Your task to perform on an android device: Open Chrome and go to settings Image 0: 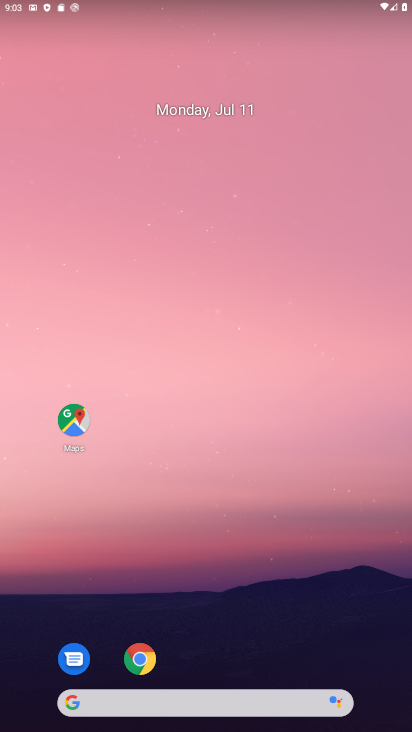
Step 0: click (136, 658)
Your task to perform on an android device: Open Chrome and go to settings Image 1: 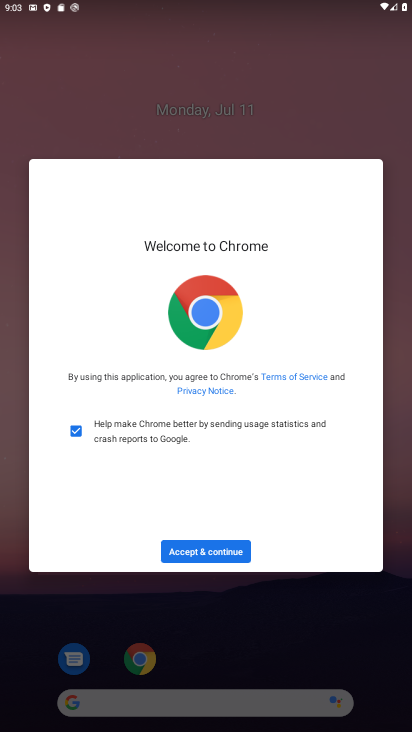
Step 1: click (199, 552)
Your task to perform on an android device: Open Chrome and go to settings Image 2: 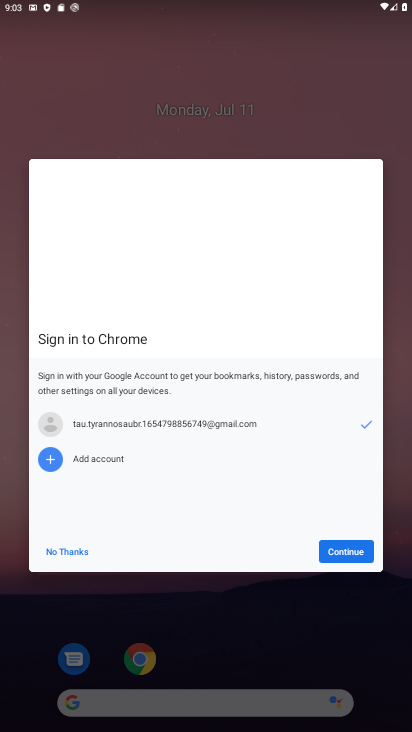
Step 2: click (344, 552)
Your task to perform on an android device: Open Chrome and go to settings Image 3: 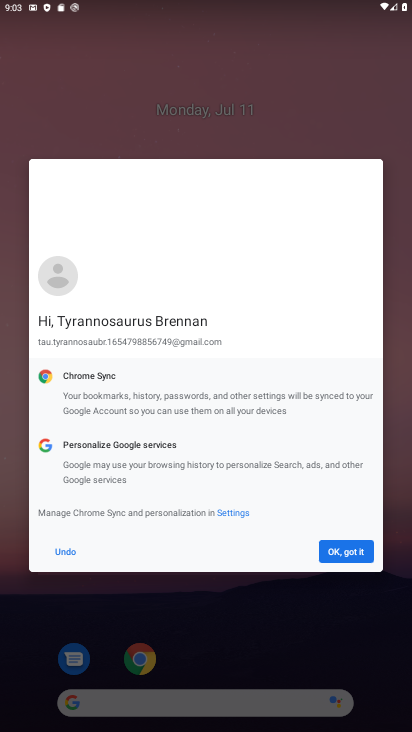
Step 3: click (337, 553)
Your task to perform on an android device: Open Chrome and go to settings Image 4: 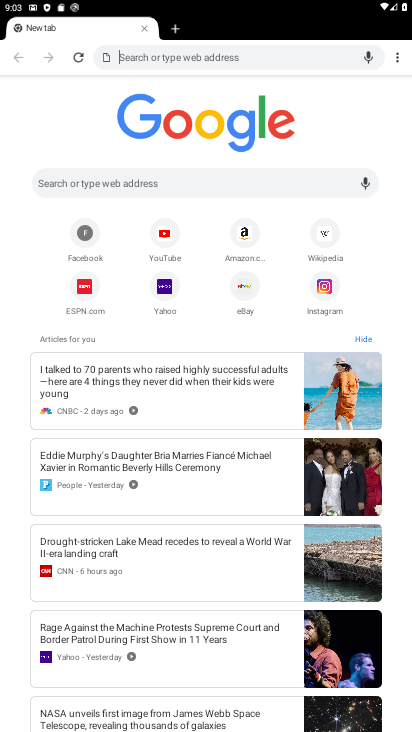
Step 4: click (395, 60)
Your task to perform on an android device: Open Chrome and go to settings Image 5: 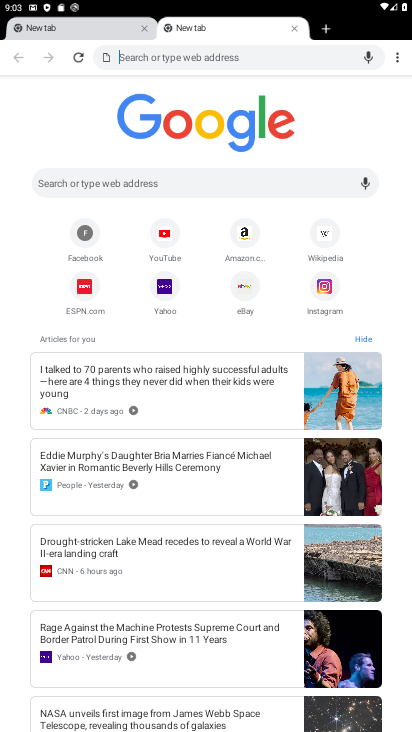
Step 5: click (395, 60)
Your task to perform on an android device: Open Chrome and go to settings Image 6: 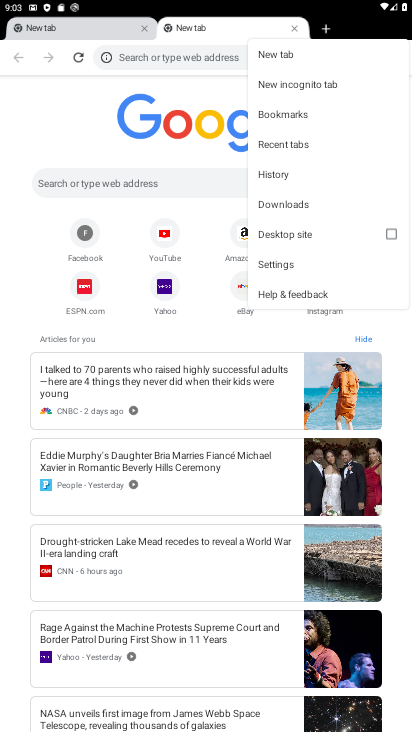
Step 6: click (280, 263)
Your task to perform on an android device: Open Chrome and go to settings Image 7: 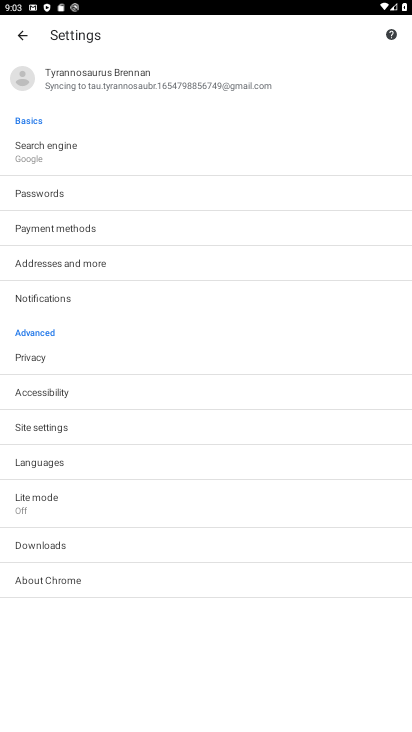
Step 7: task complete